Your task to perform on an android device: What is the news today? Image 0: 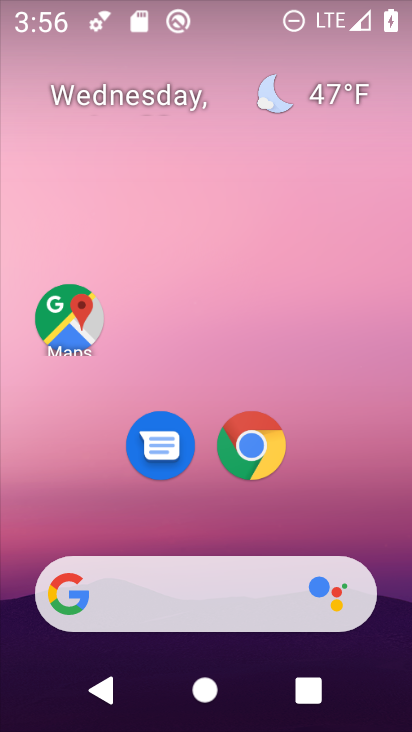
Step 0: drag from (282, 530) to (344, 91)
Your task to perform on an android device: What is the news today? Image 1: 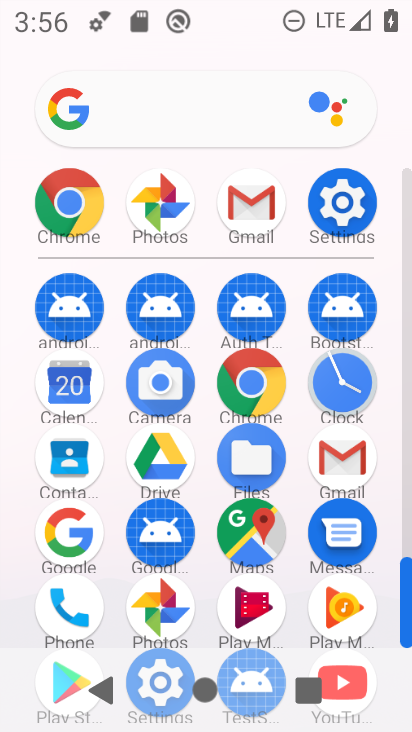
Step 1: drag from (207, 482) to (221, 331)
Your task to perform on an android device: What is the news today? Image 2: 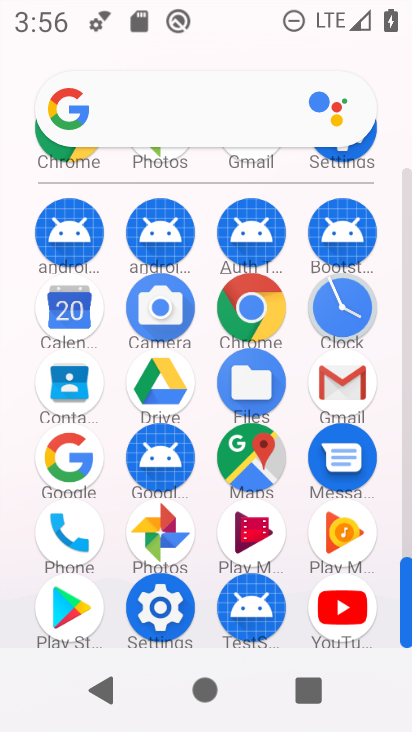
Step 2: click (69, 460)
Your task to perform on an android device: What is the news today? Image 3: 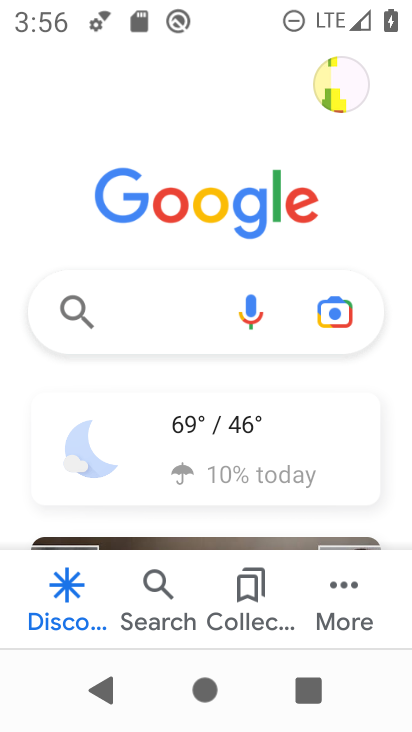
Step 3: click (156, 305)
Your task to perform on an android device: What is the news today? Image 4: 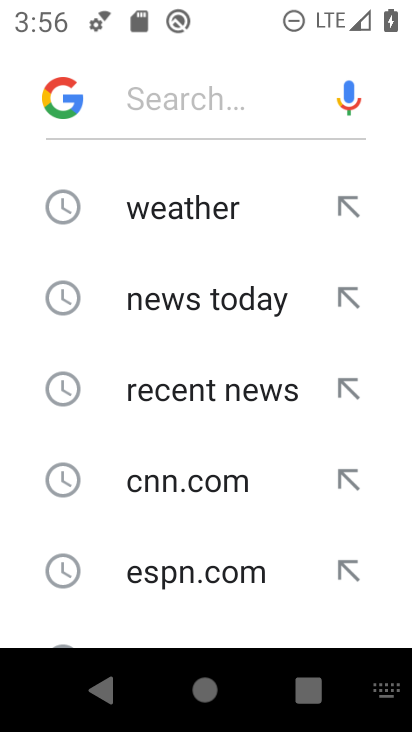
Step 4: click (156, 305)
Your task to perform on an android device: What is the news today? Image 5: 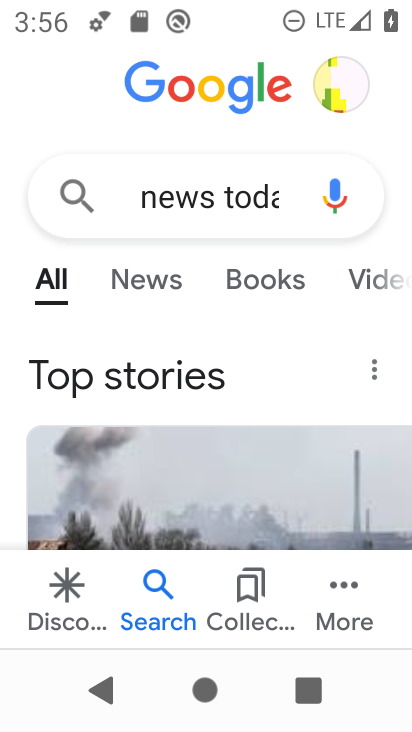
Step 5: task complete